Your task to perform on an android device: change alarm snooze length Image 0: 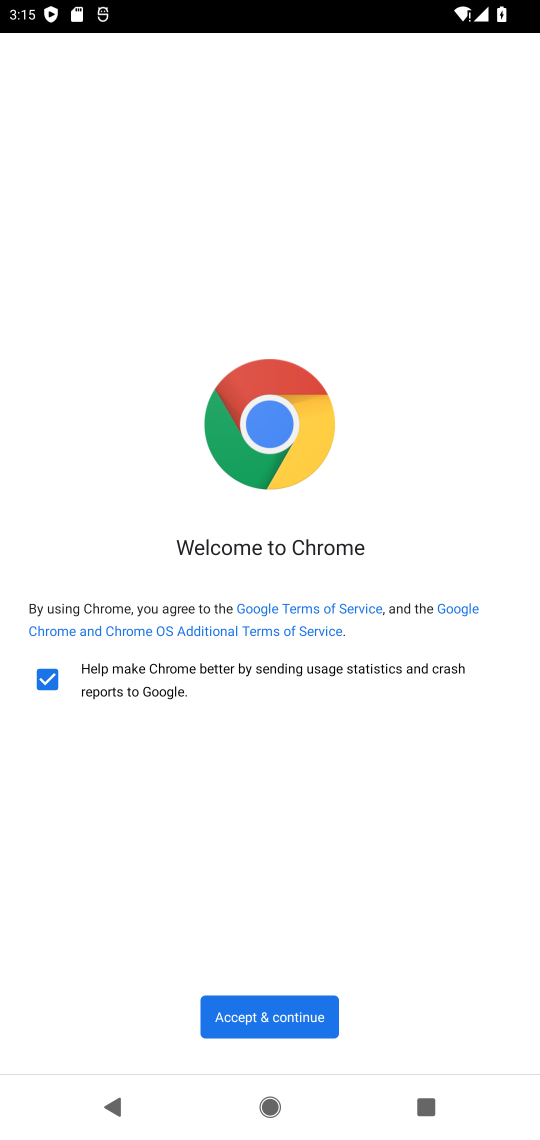
Step 0: press home button
Your task to perform on an android device: change alarm snooze length Image 1: 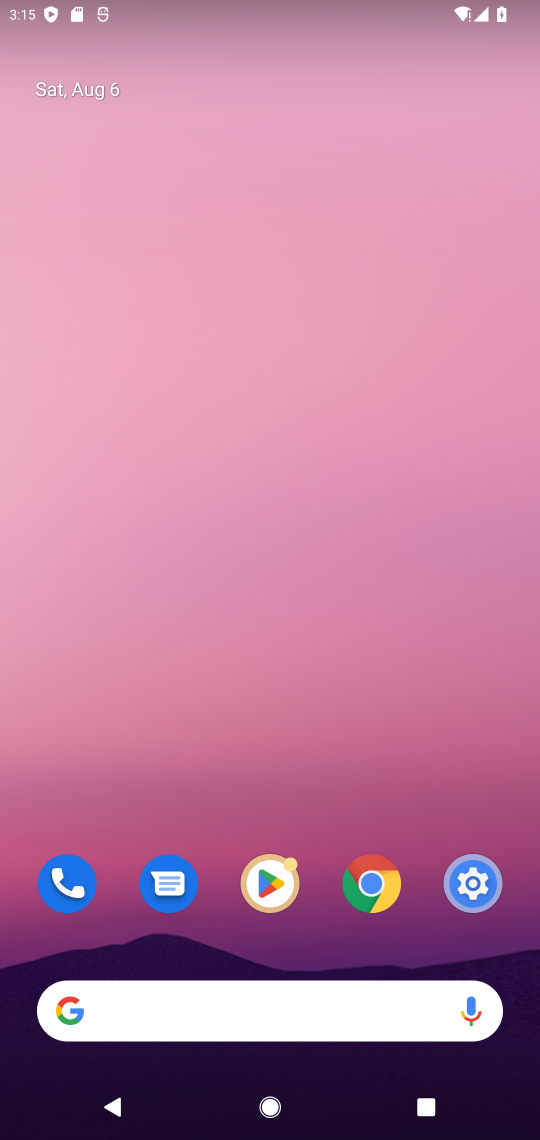
Step 1: drag from (356, 825) to (427, 225)
Your task to perform on an android device: change alarm snooze length Image 2: 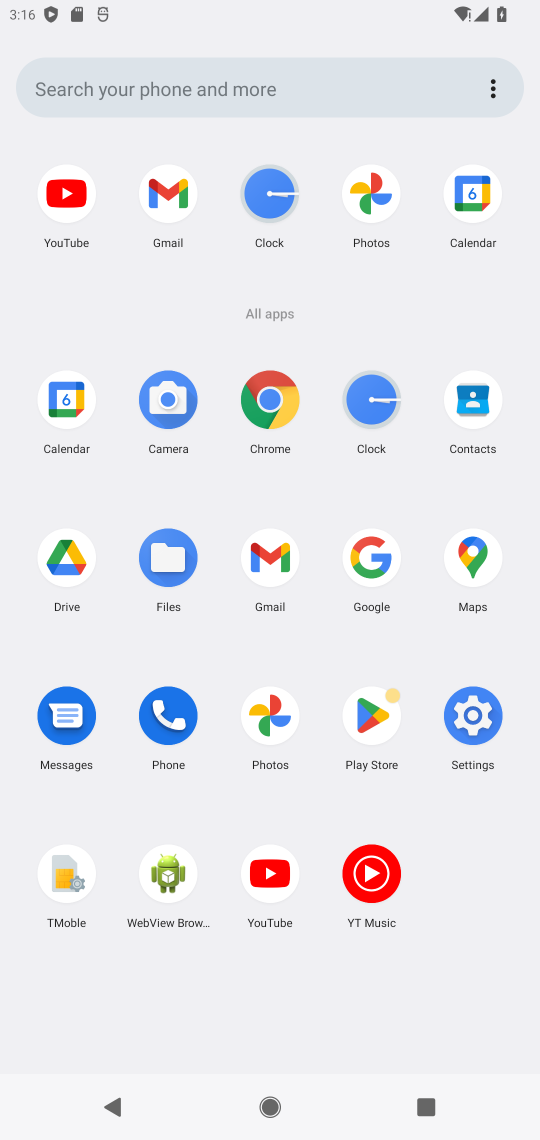
Step 2: click (377, 428)
Your task to perform on an android device: change alarm snooze length Image 3: 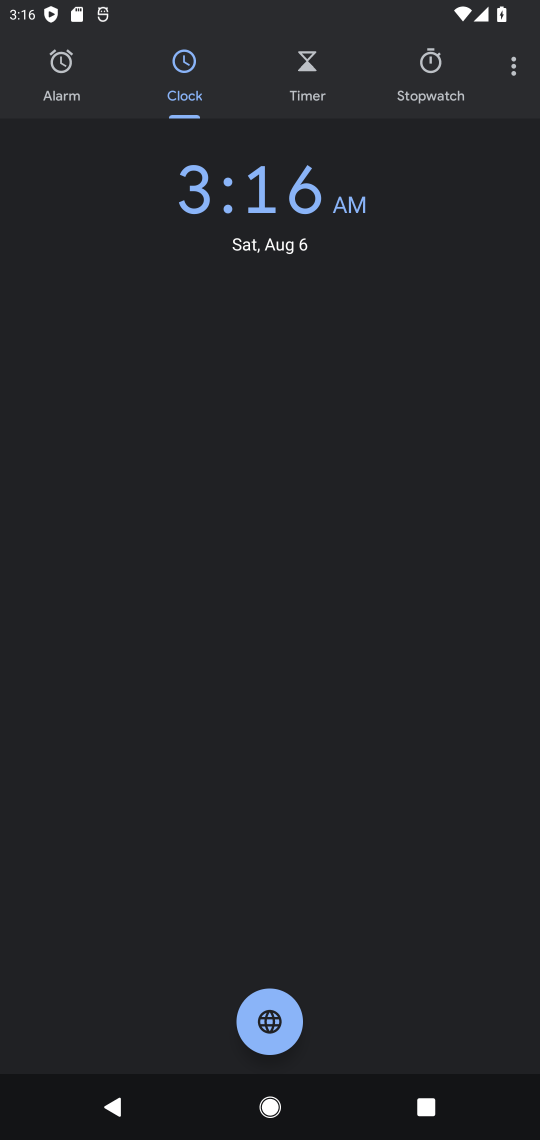
Step 3: click (519, 67)
Your task to perform on an android device: change alarm snooze length Image 4: 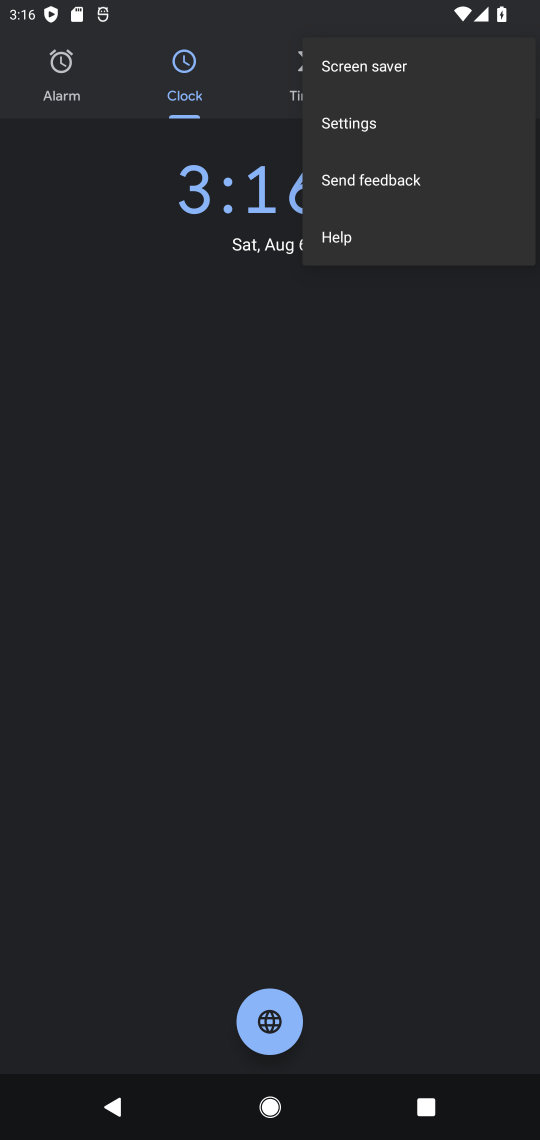
Step 4: click (361, 127)
Your task to perform on an android device: change alarm snooze length Image 5: 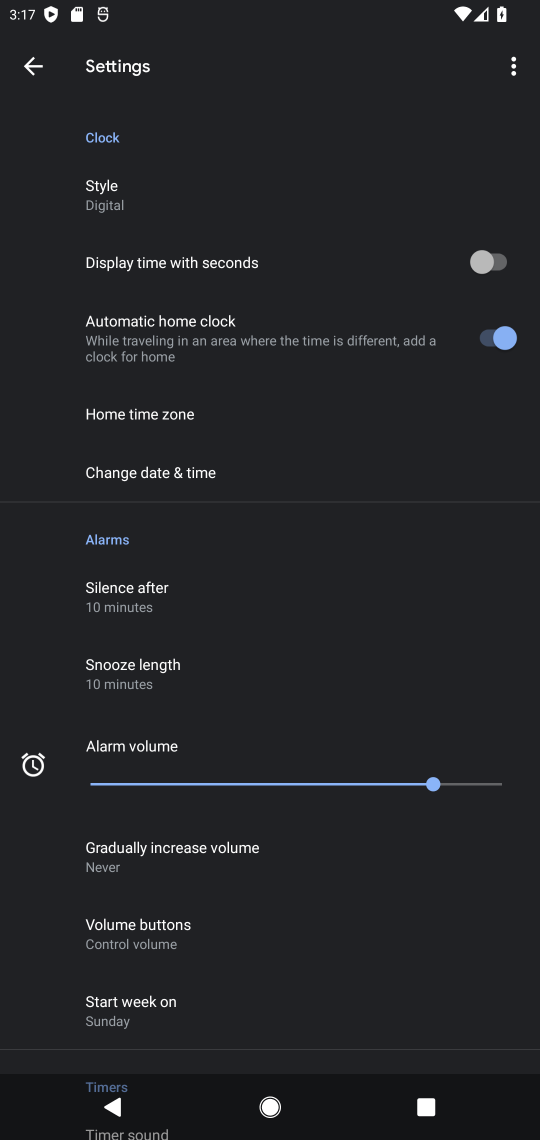
Step 5: click (130, 684)
Your task to perform on an android device: change alarm snooze length Image 6: 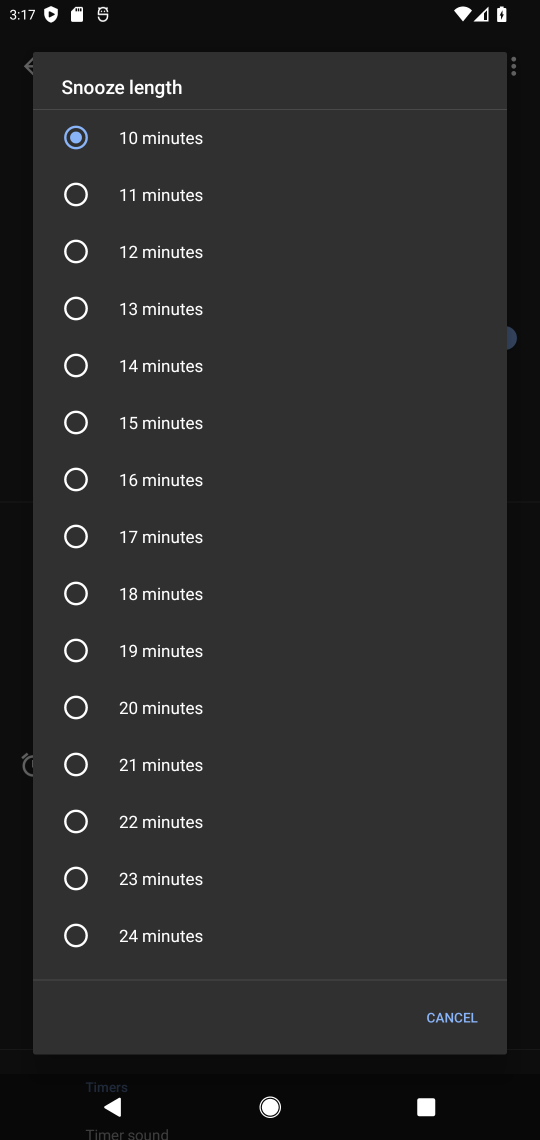
Step 6: click (83, 250)
Your task to perform on an android device: change alarm snooze length Image 7: 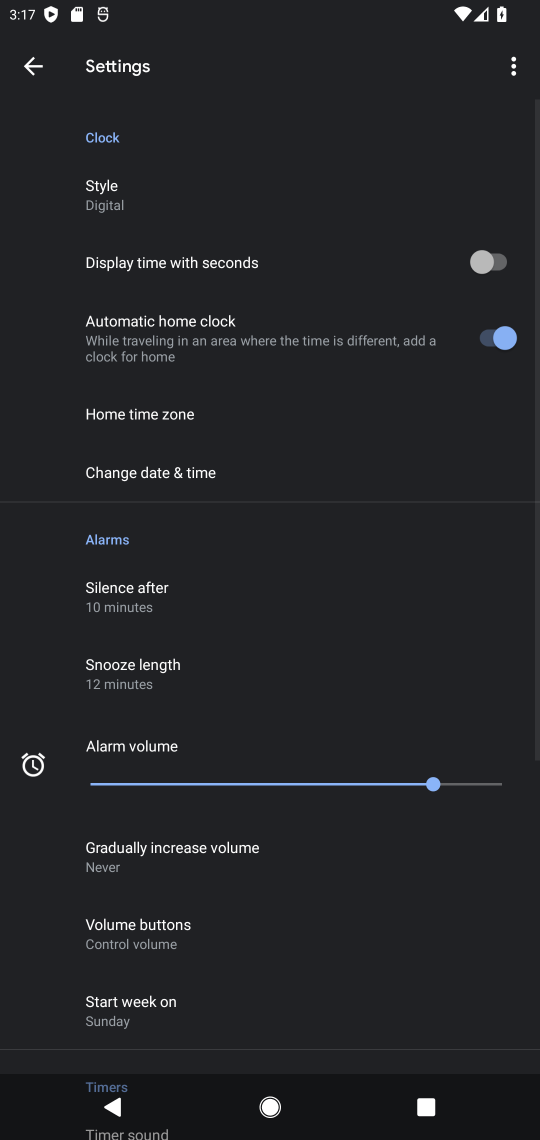
Step 7: task complete